Your task to perform on an android device: delete location history Image 0: 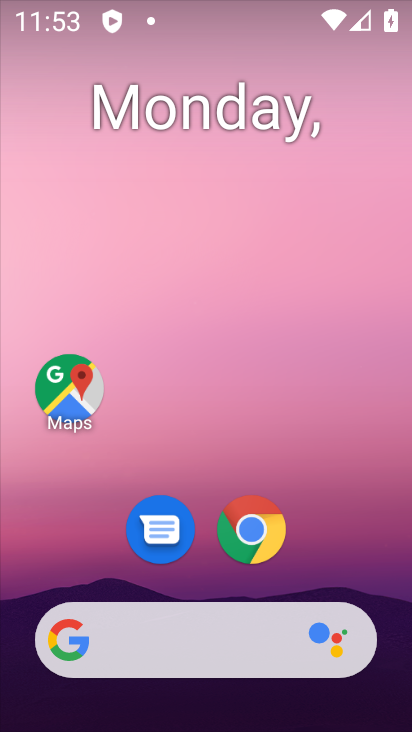
Step 0: click (63, 357)
Your task to perform on an android device: delete location history Image 1: 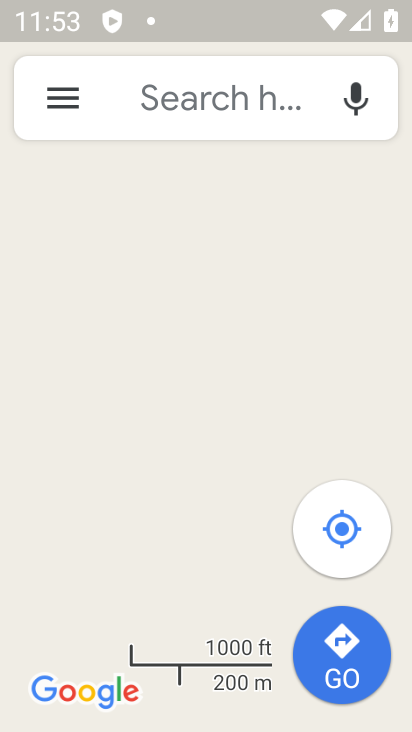
Step 1: click (104, 91)
Your task to perform on an android device: delete location history Image 2: 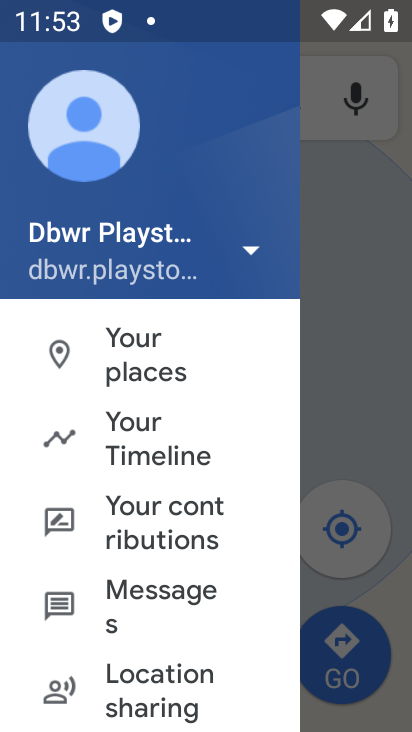
Step 2: click (158, 445)
Your task to perform on an android device: delete location history Image 3: 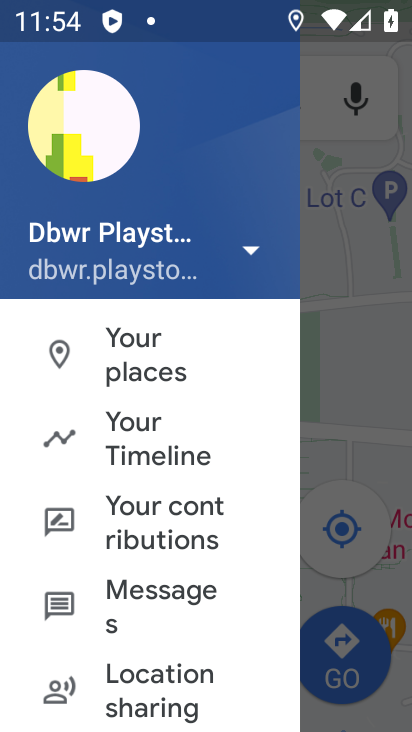
Step 3: click (158, 445)
Your task to perform on an android device: delete location history Image 4: 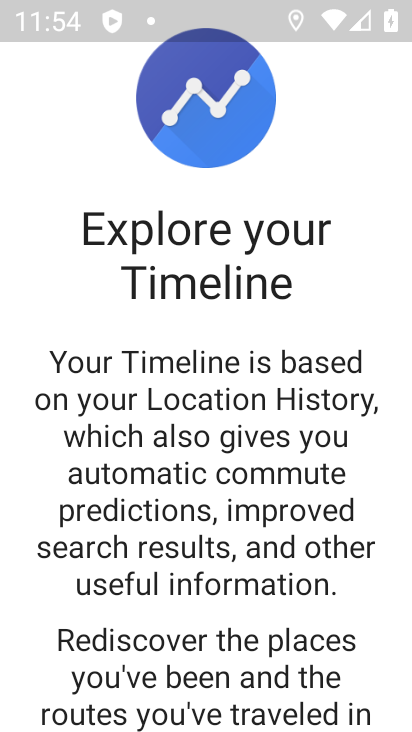
Step 4: drag from (234, 575) to (276, 112)
Your task to perform on an android device: delete location history Image 5: 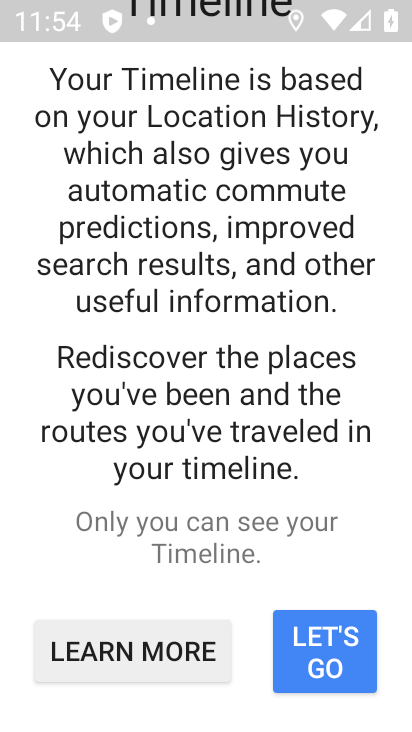
Step 5: click (318, 640)
Your task to perform on an android device: delete location history Image 6: 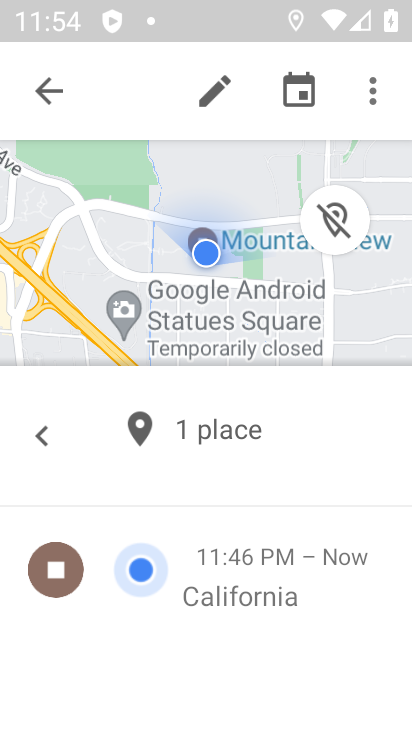
Step 6: click (367, 99)
Your task to perform on an android device: delete location history Image 7: 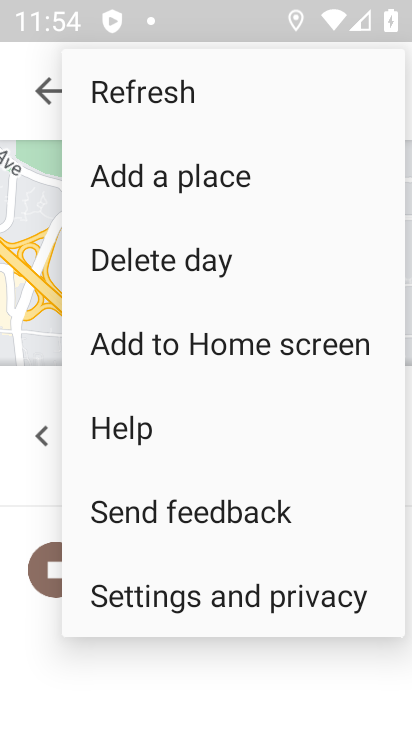
Step 7: click (232, 602)
Your task to perform on an android device: delete location history Image 8: 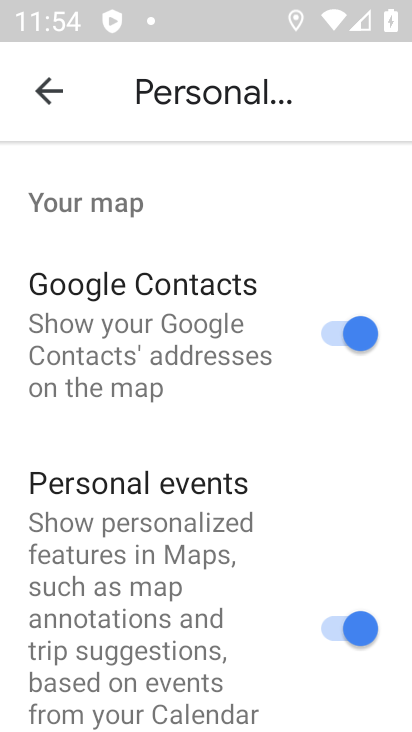
Step 8: drag from (196, 536) to (273, 112)
Your task to perform on an android device: delete location history Image 9: 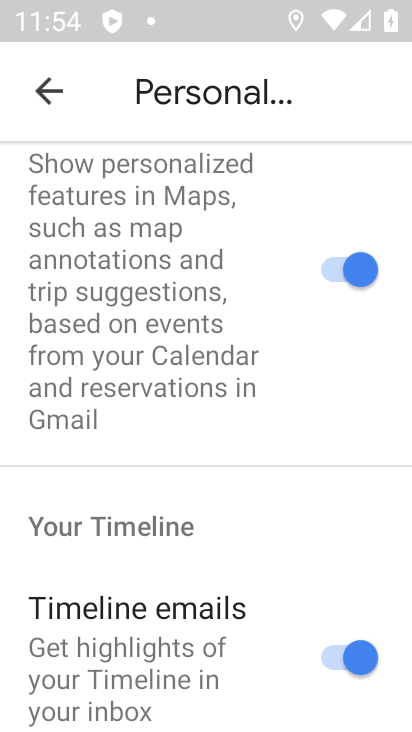
Step 9: drag from (208, 606) to (267, 127)
Your task to perform on an android device: delete location history Image 10: 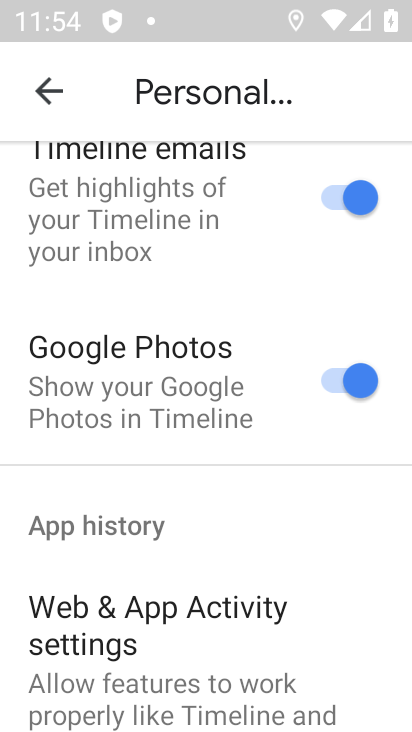
Step 10: drag from (248, 566) to (289, 47)
Your task to perform on an android device: delete location history Image 11: 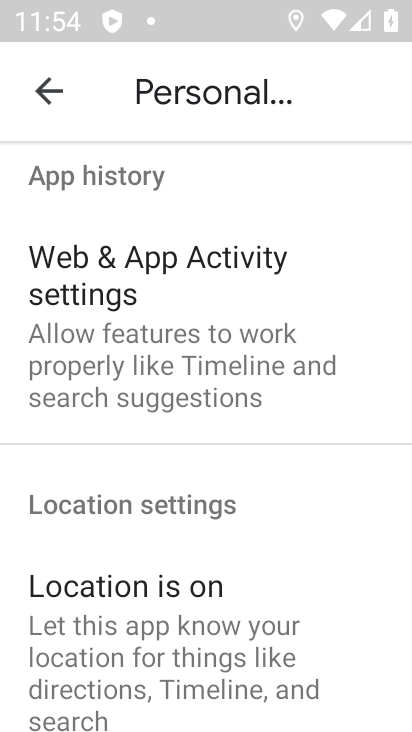
Step 11: drag from (202, 547) to (237, 101)
Your task to perform on an android device: delete location history Image 12: 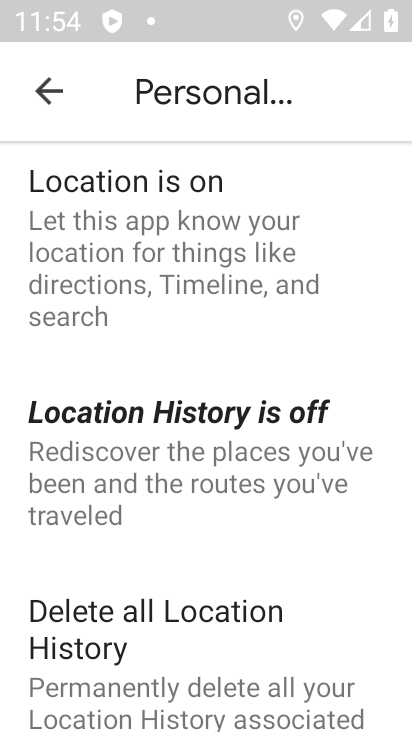
Step 12: click (136, 635)
Your task to perform on an android device: delete location history Image 13: 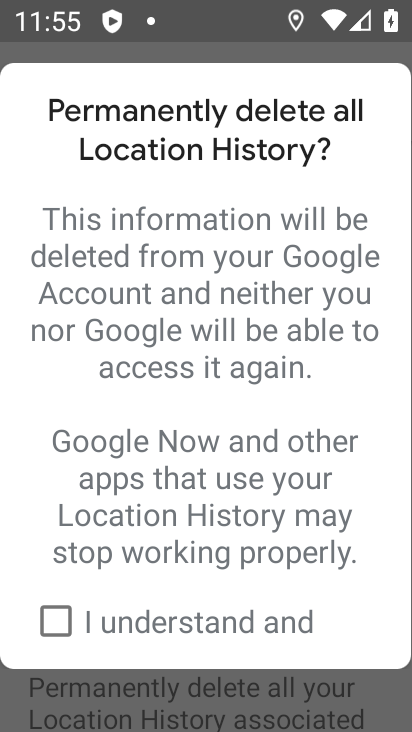
Step 13: drag from (136, 635) to (216, 348)
Your task to perform on an android device: delete location history Image 14: 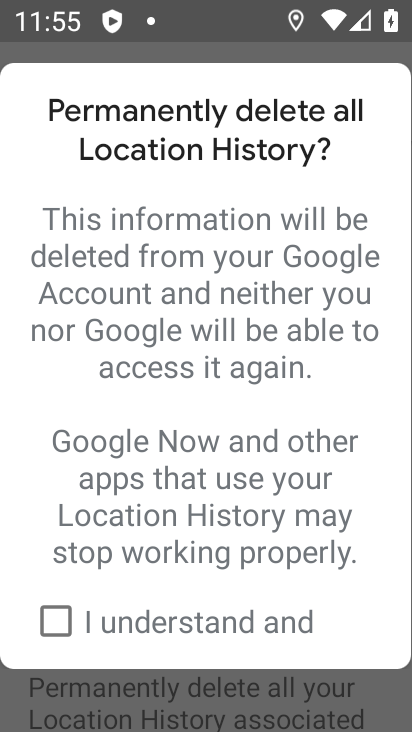
Step 14: drag from (120, 607) to (275, 69)
Your task to perform on an android device: delete location history Image 15: 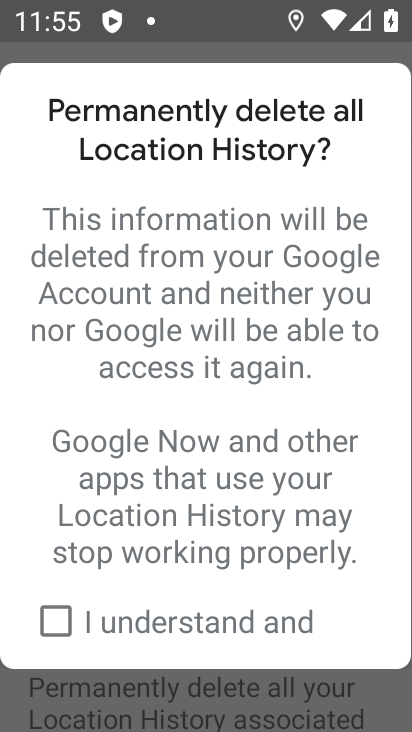
Step 15: click (58, 629)
Your task to perform on an android device: delete location history Image 16: 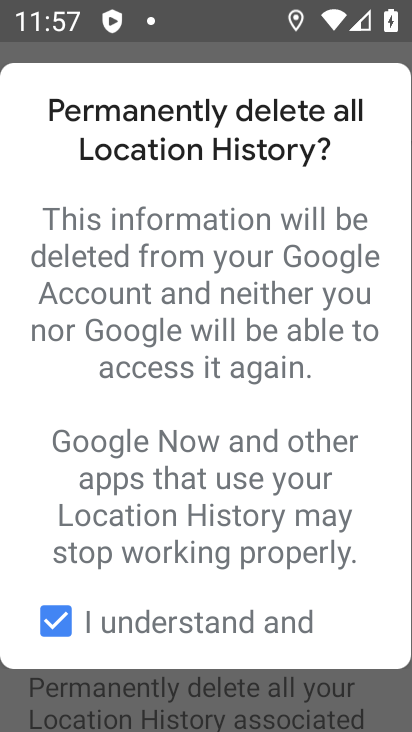
Step 16: task complete